Your task to perform on an android device: check data usage Image 0: 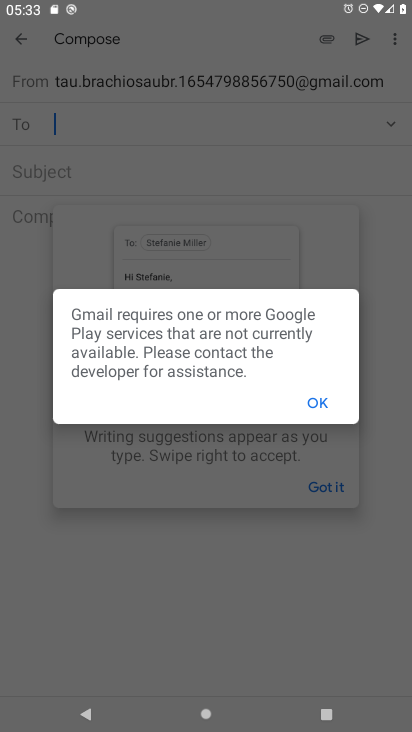
Step 0: press home button
Your task to perform on an android device: check data usage Image 1: 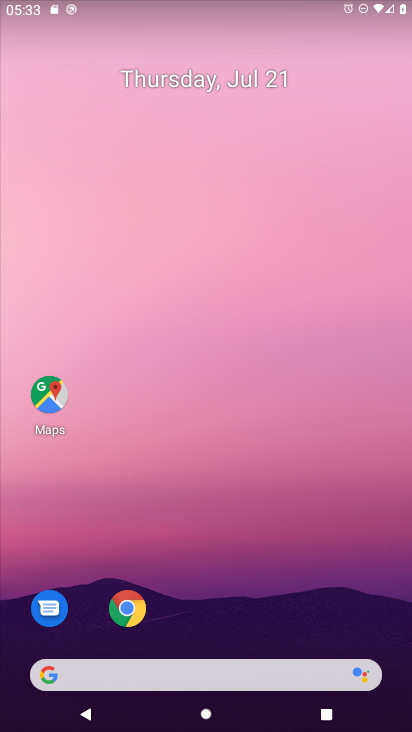
Step 1: drag from (275, 685) to (321, 44)
Your task to perform on an android device: check data usage Image 2: 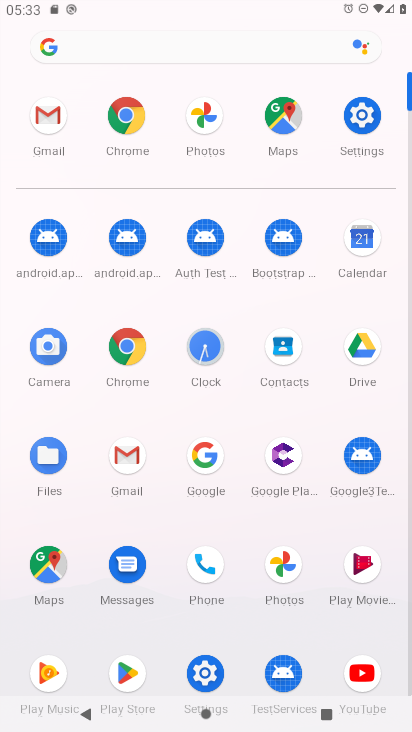
Step 2: click (356, 113)
Your task to perform on an android device: check data usage Image 3: 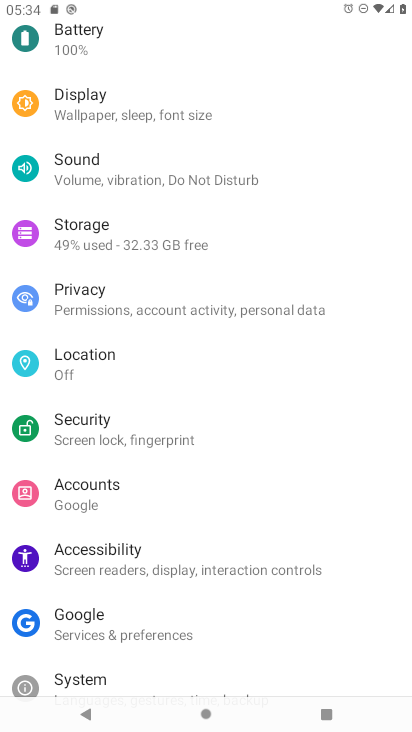
Step 3: drag from (108, 235) to (137, 600)
Your task to perform on an android device: check data usage Image 4: 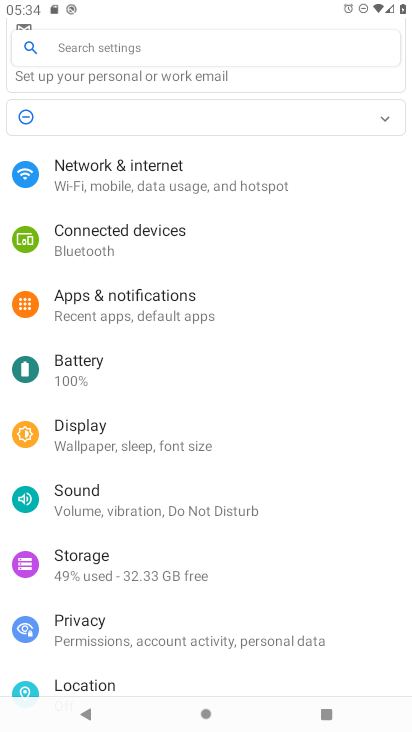
Step 4: click (182, 186)
Your task to perform on an android device: check data usage Image 5: 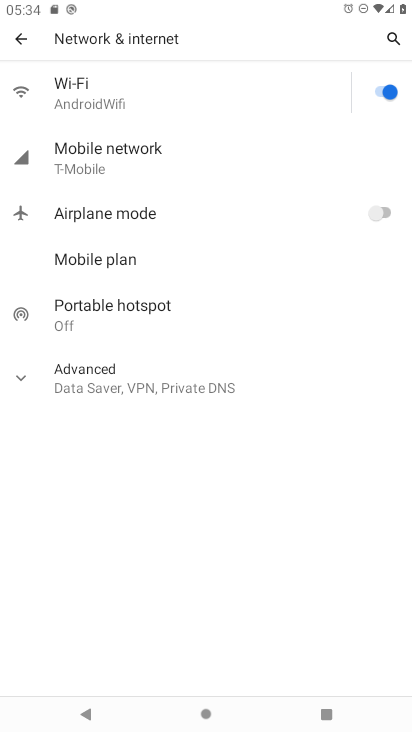
Step 5: click (147, 155)
Your task to perform on an android device: check data usage Image 6: 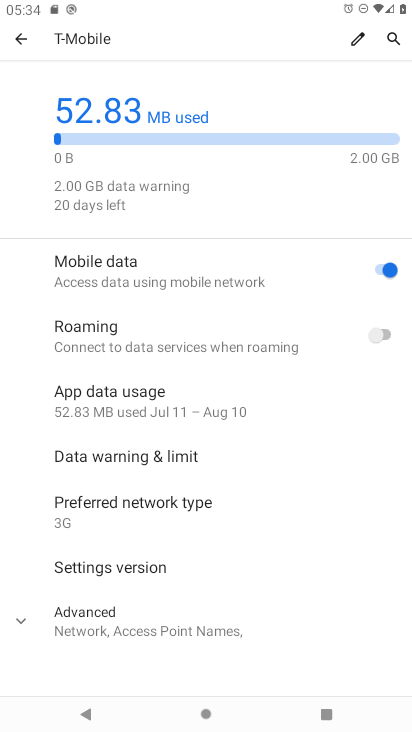
Step 6: task complete